Your task to perform on an android device: change text size in settings app Image 0: 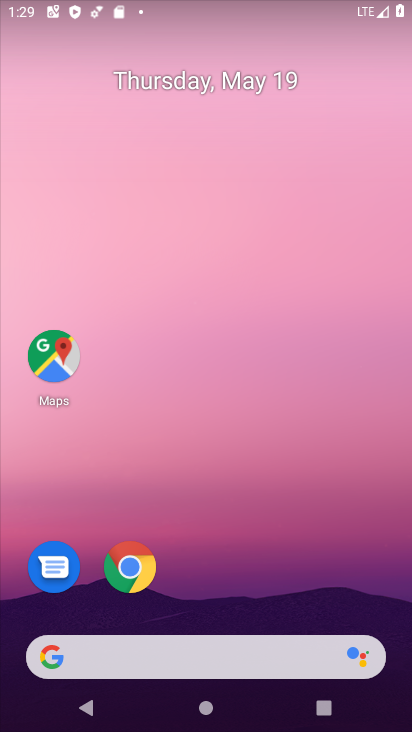
Step 0: press home button
Your task to perform on an android device: change text size in settings app Image 1: 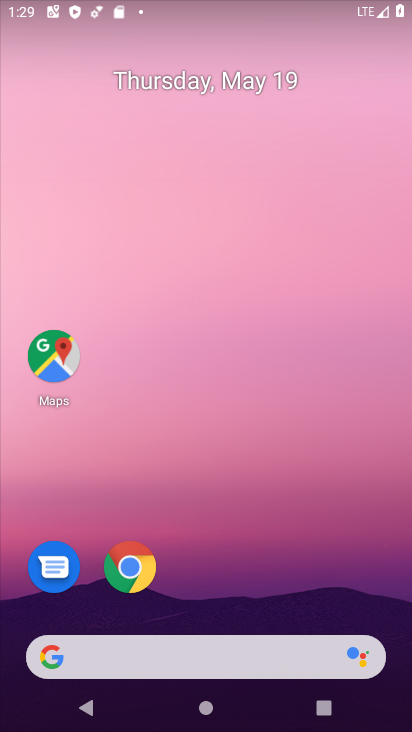
Step 1: drag from (13, 466) to (233, 96)
Your task to perform on an android device: change text size in settings app Image 2: 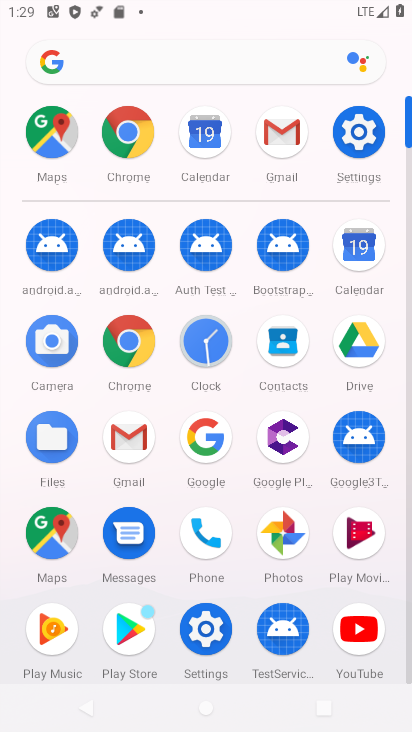
Step 2: click (362, 127)
Your task to perform on an android device: change text size in settings app Image 3: 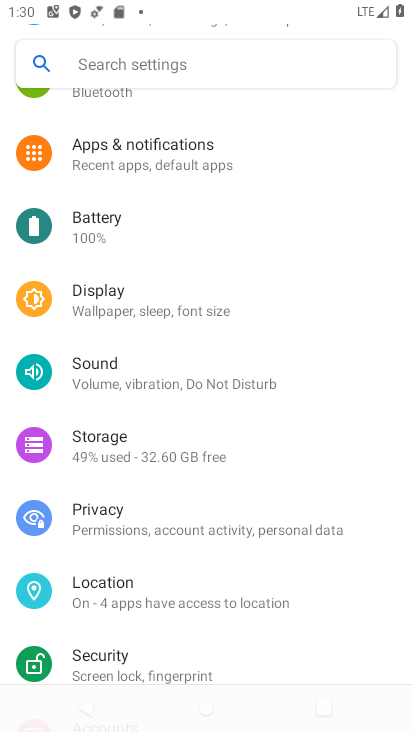
Step 3: click (218, 306)
Your task to perform on an android device: change text size in settings app Image 4: 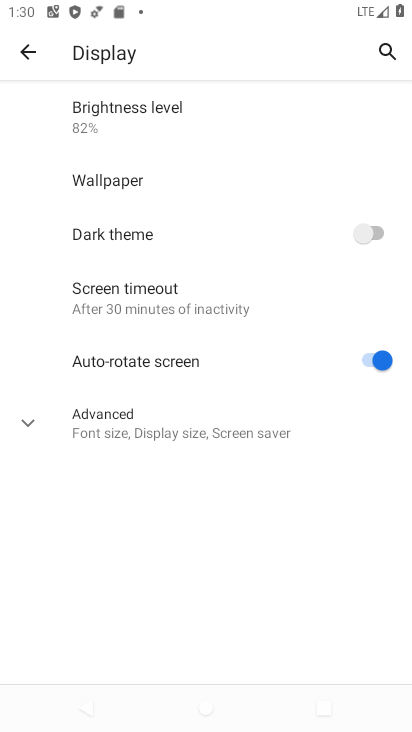
Step 4: click (177, 436)
Your task to perform on an android device: change text size in settings app Image 5: 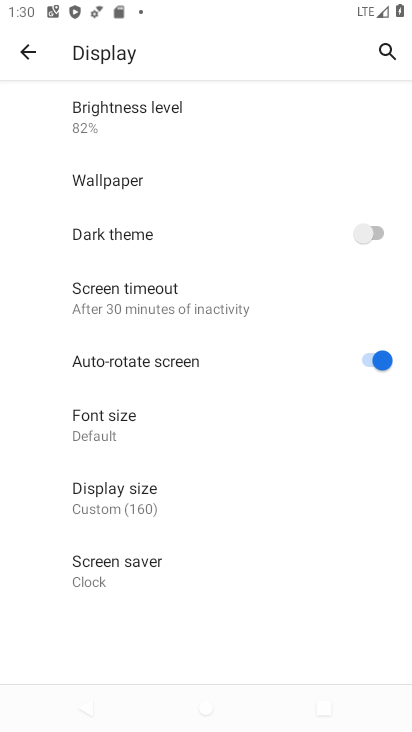
Step 5: click (126, 435)
Your task to perform on an android device: change text size in settings app Image 6: 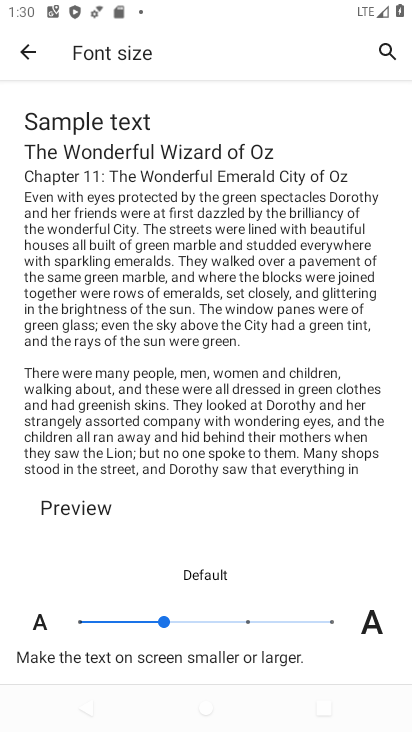
Step 6: click (241, 622)
Your task to perform on an android device: change text size in settings app Image 7: 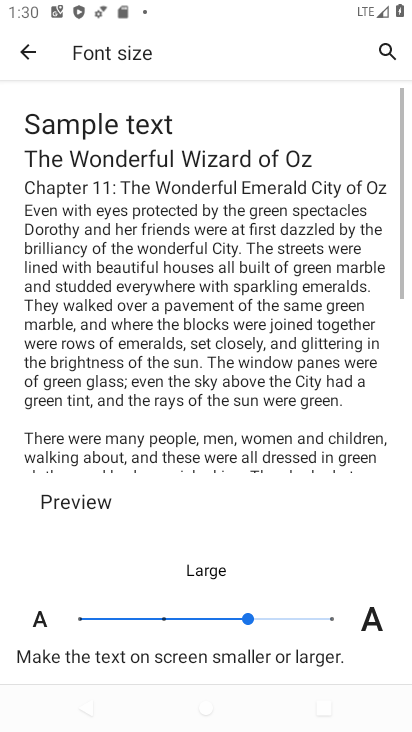
Step 7: task complete